Your task to perform on an android device: see sites visited before in the chrome app Image 0: 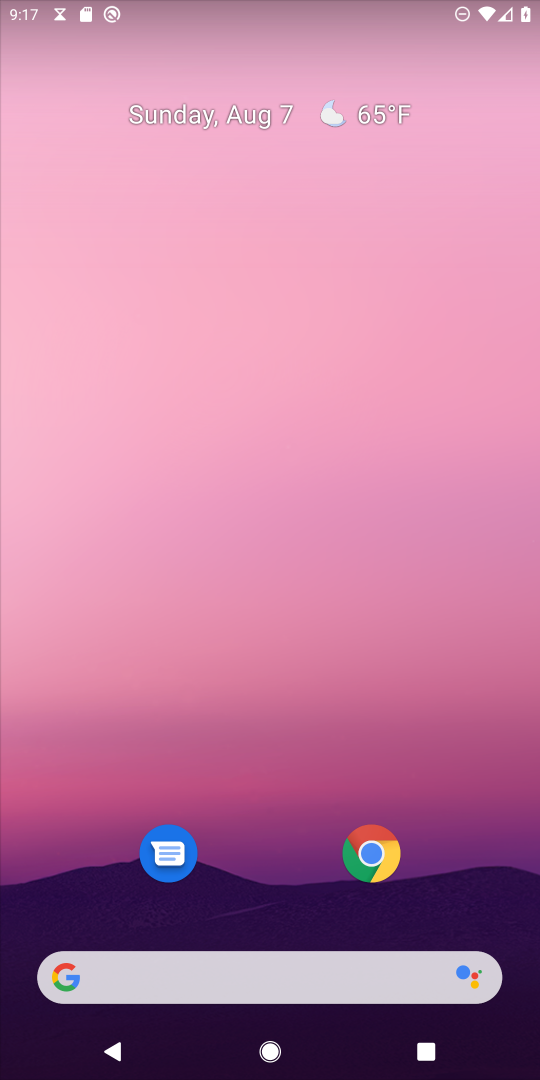
Step 0: drag from (282, 556) to (275, 277)
Your task to perform on an android device: see sites visited before in the chrome app Image 1: 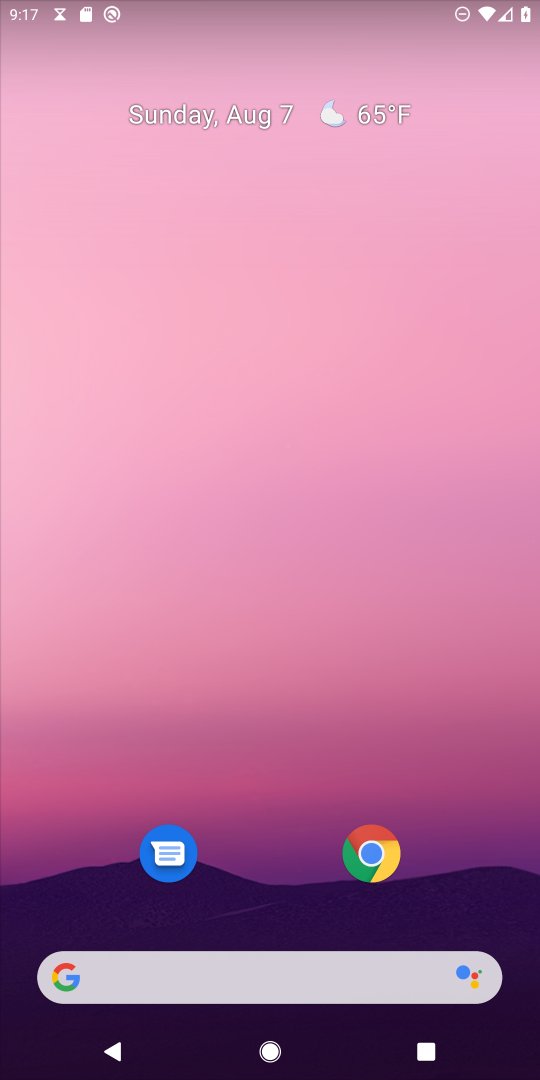
Step 1: drag from (270, 911) to (274, 322)
Your task to perform on an android device: see sites visited before in the chrome app Image 2: 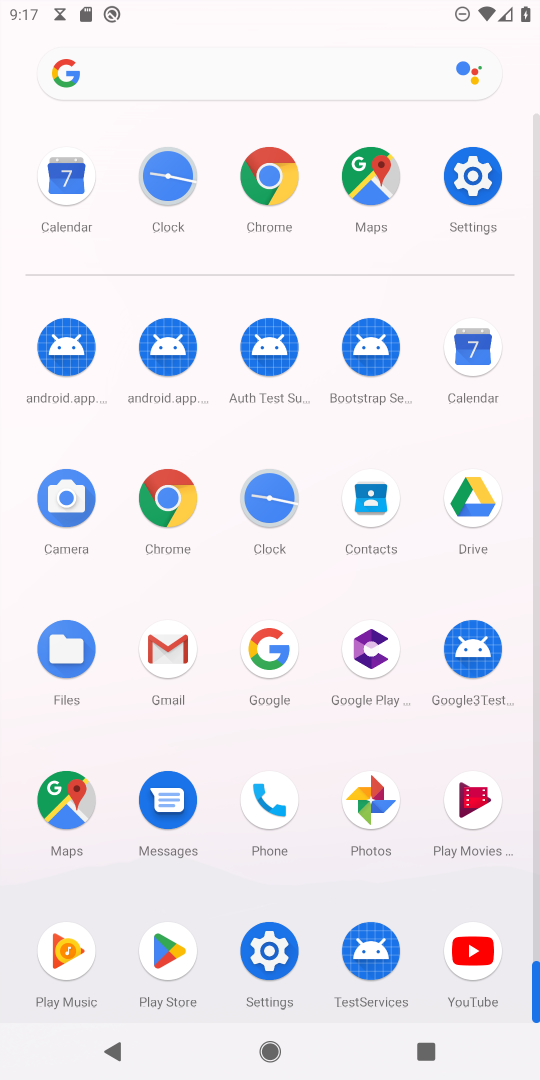
Step 2: click (171, 493)
Your task to perform on an android device: see sites visited before in the chrome app Image 3: 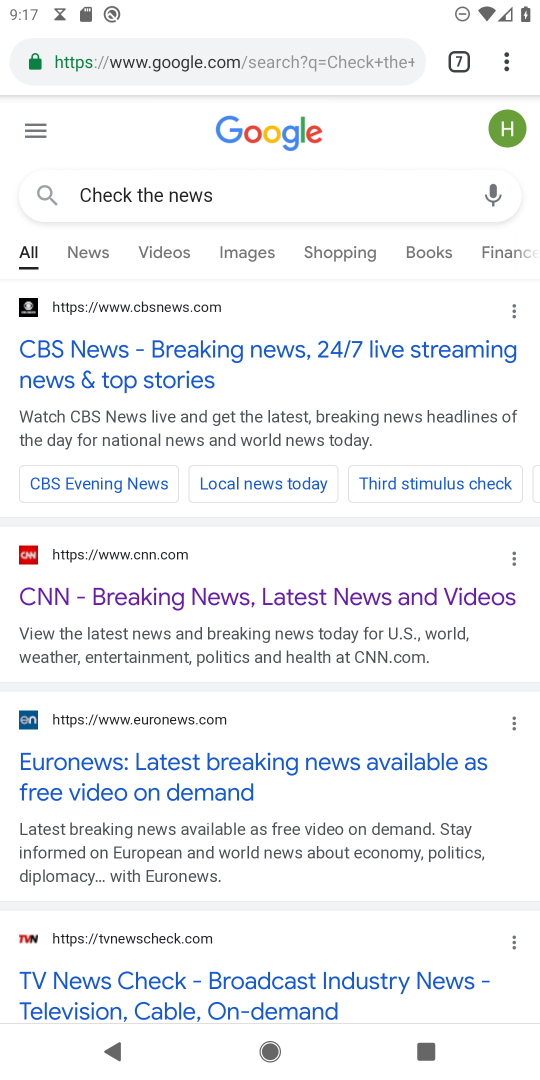
Step 3: click (506, 49)
Your task to perform on an android device: see sites visited before in the chrome app Image 4: 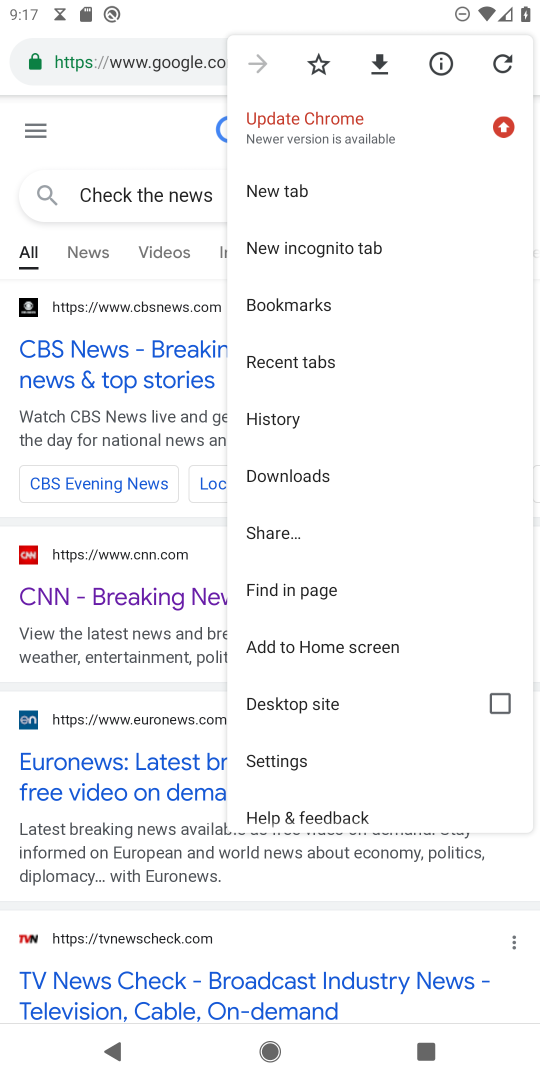
Step 4: press home button
Your task to perform on an android device: see sites visited before in the chrome app Image 5: 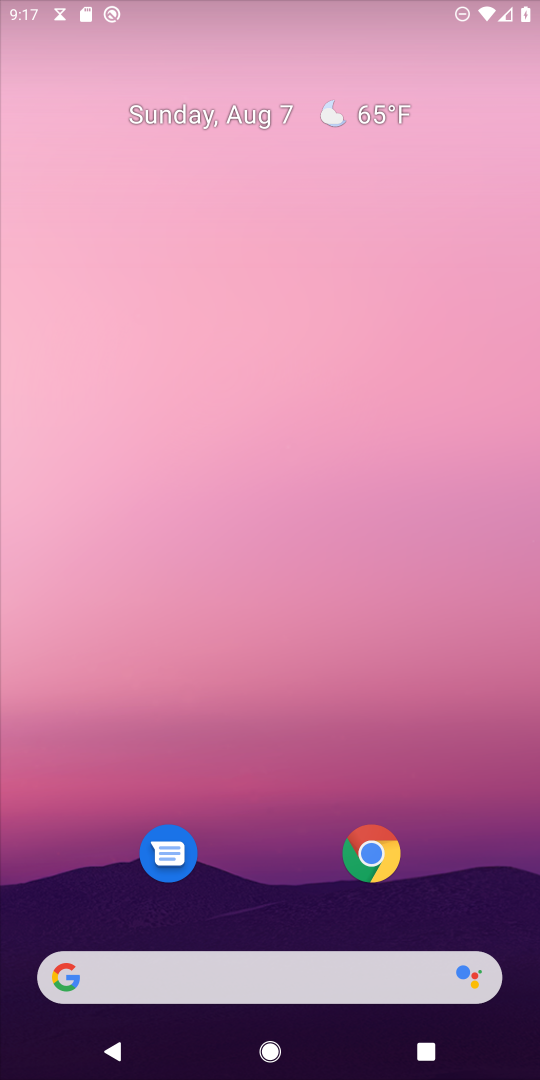
Step 5: drag from (279, 942) to (267, 312)
Your task to perform on an android device: see sites visited before in the chrome app Image 6: 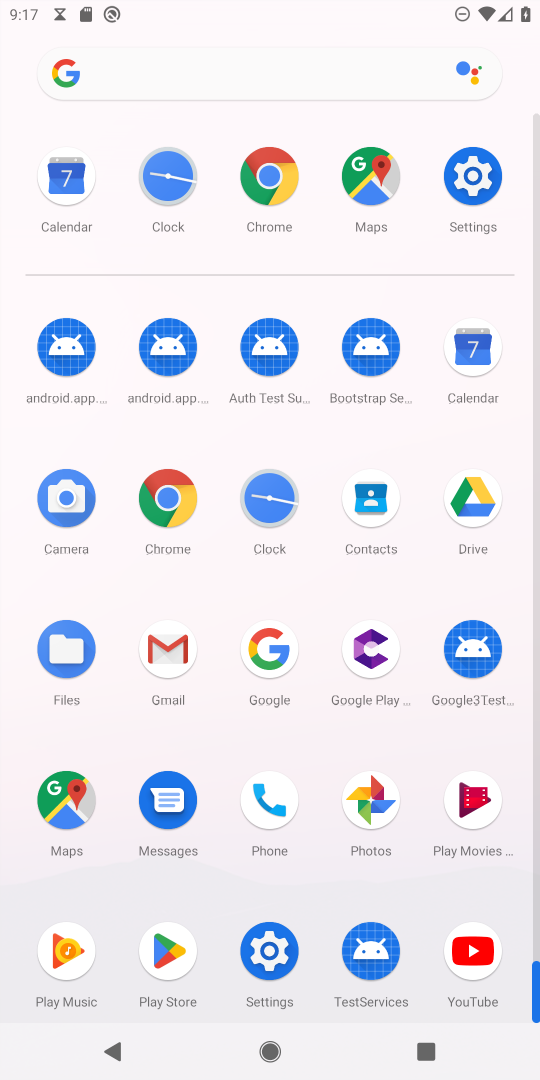
Step 6: click (382, 798)
Your task to perform on an android device: see sites visited before in the chrome app Image 7: 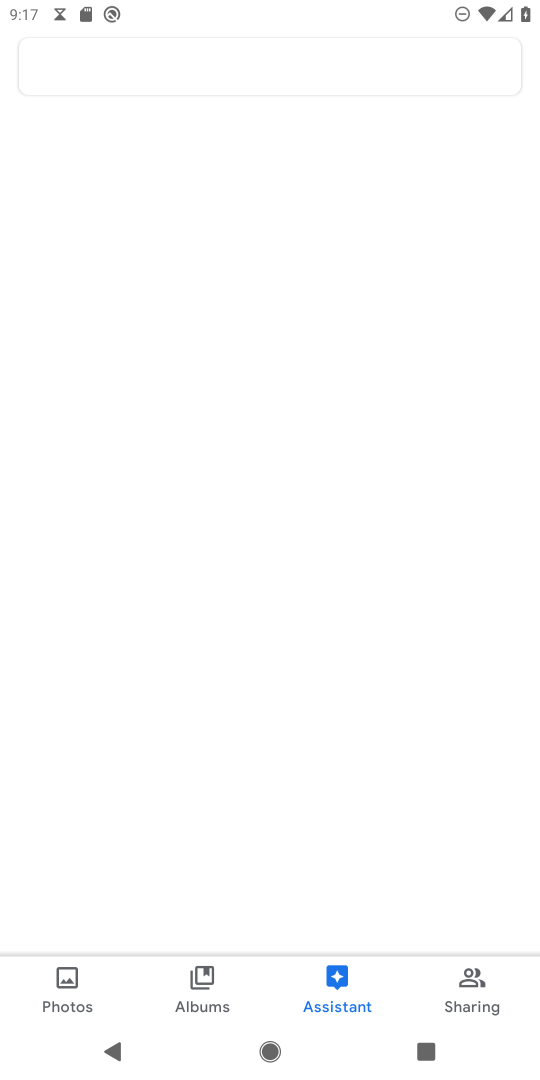
Step 7: press home button
Your task to perform on an android device: see sites visited before in the chrome app Image 8: 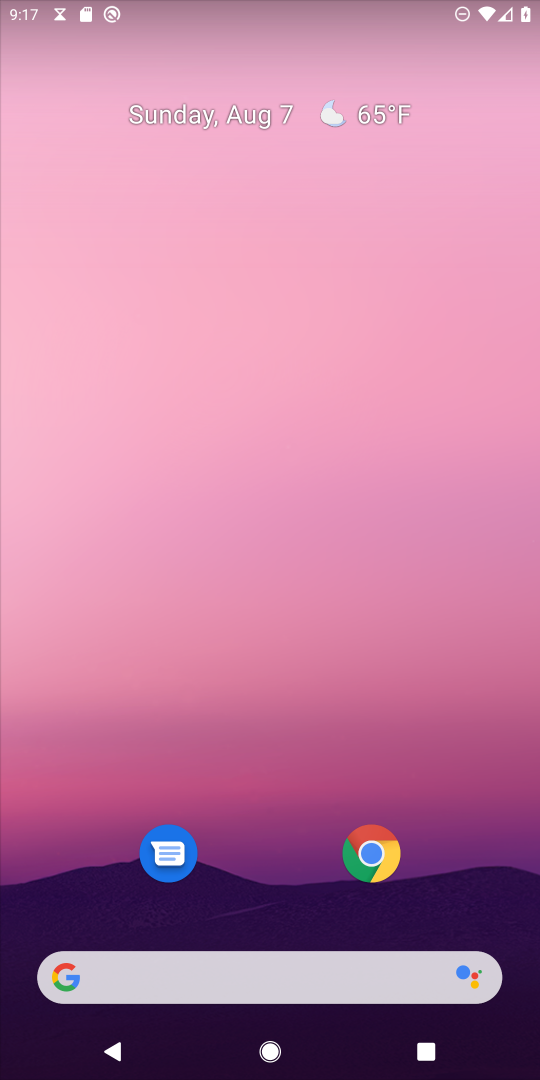
Step 8: drag from (252, 871) to (242, 305)
Your task to perform on an android device: see sites visited before in the chrome app Image 9: 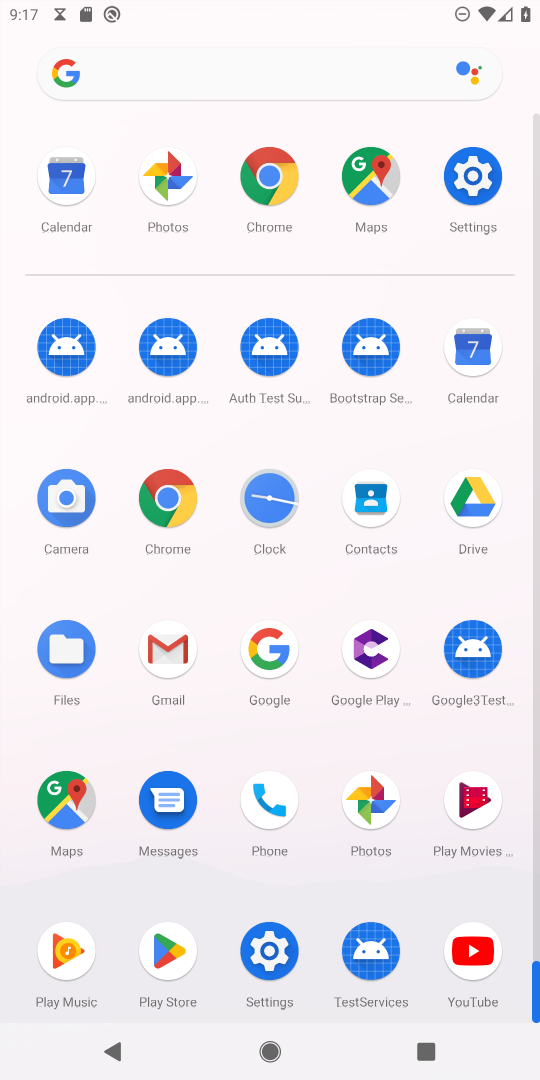
Step 9: click (285, 170)
Your task to perform on an android device: see sites visited before in the chrome app Image 10: 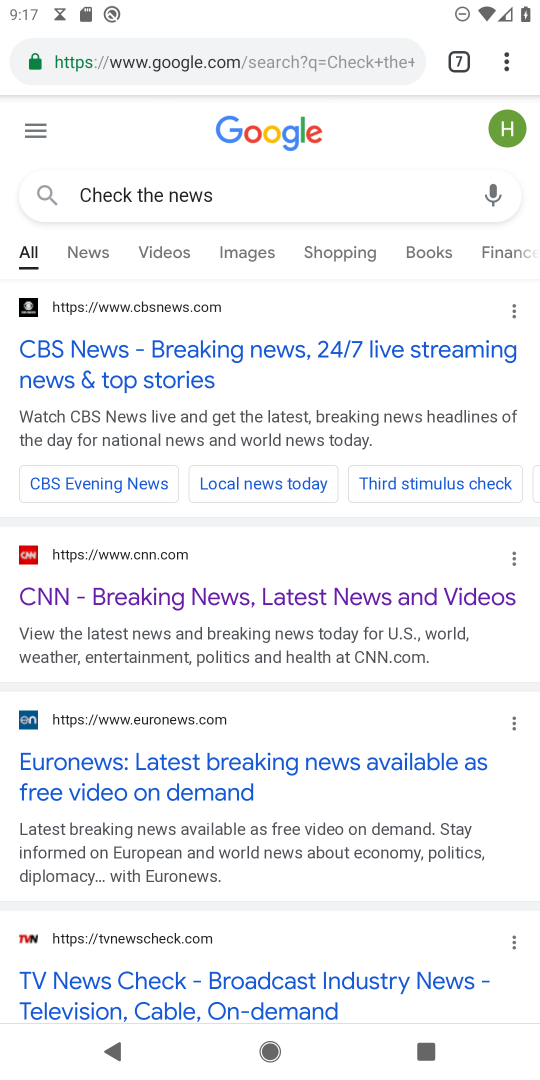
Step 10: click (514, 64)
Your task to perform on an android device: see sites visited before in the chrome app Image 11: 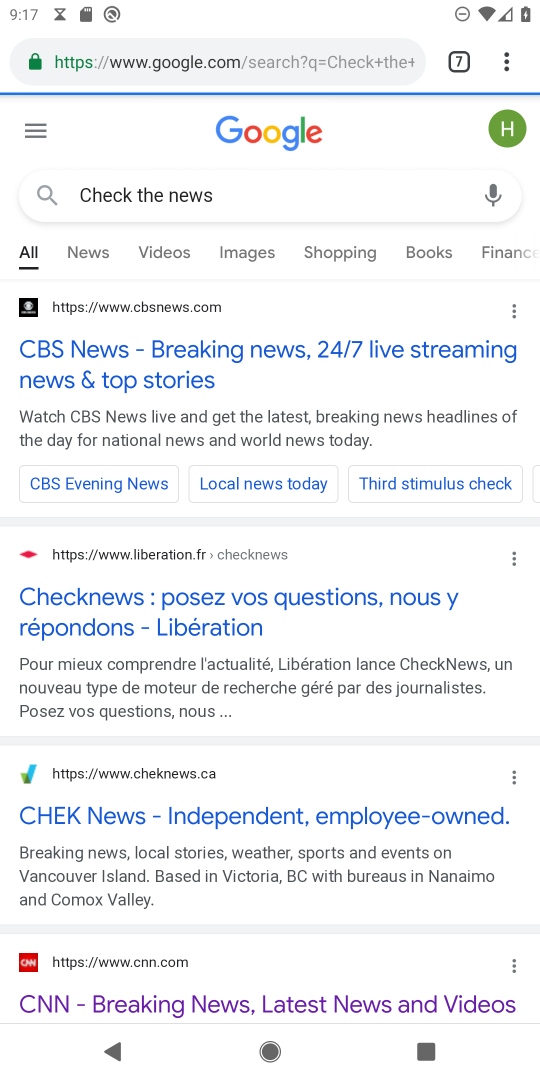
Step 11: click (514, 64)
Your task to perform on an android device: see sites visited before in the chrome app Image 12: 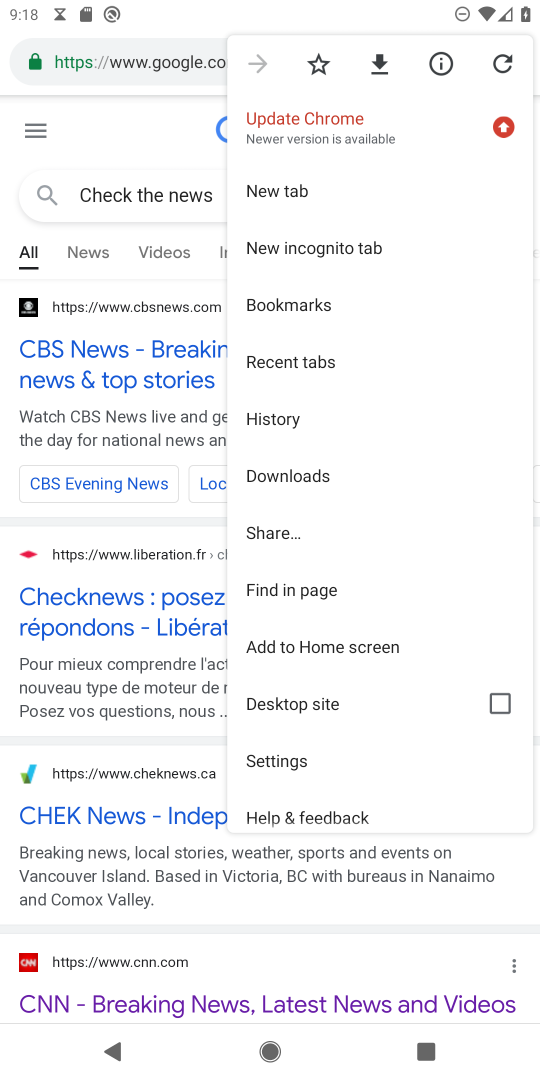
Step 12: click (303, 421)
Your task to perform on an android device: see sites visited before in the chrome app Image 13: 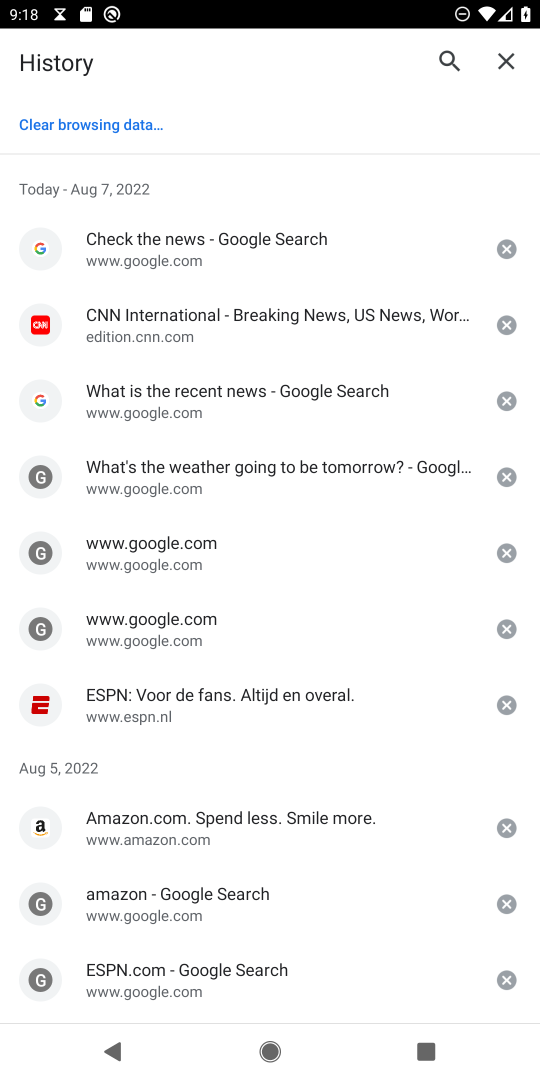
Step 13: task complete